Your task to perform on an android device: open chrome privacy settings Image 0: 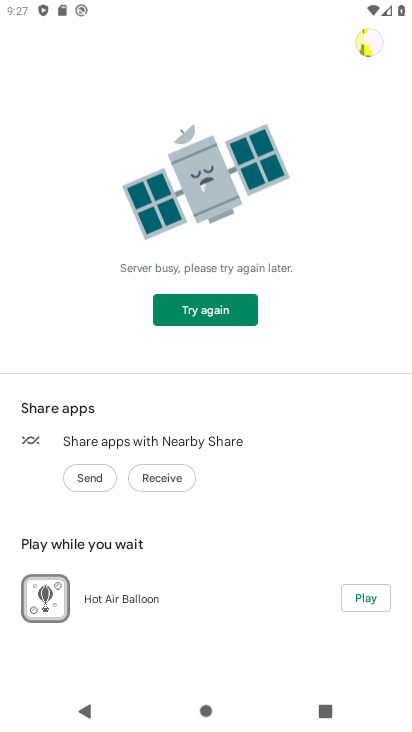
Step 0: press home button
Your task to perform on an android device: open chrome privacy settings Image 1: 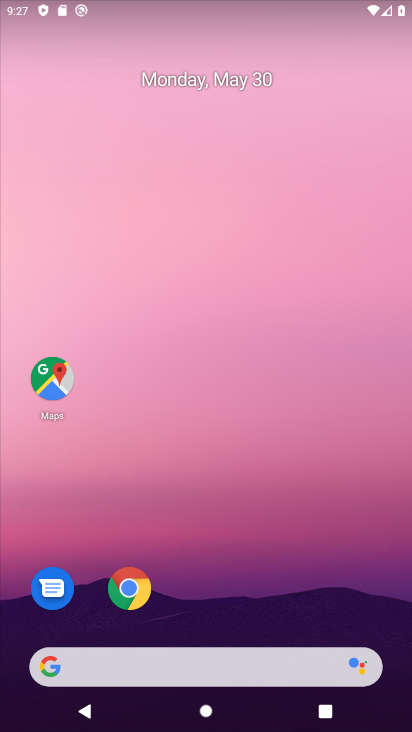
Step 1: drag from (225, 630) to (227, 1)
Your task to perform on an android device: open chrome privacy settings Image 2: 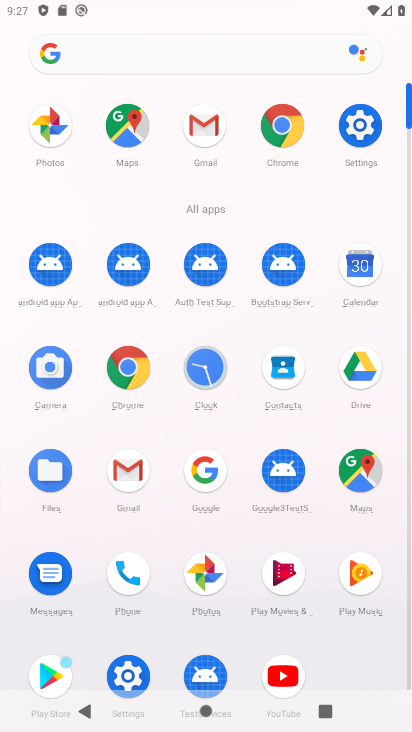
Step 2: click (145, 377)
Your task to perform on an android device: open chrome privacy settings Image 3: 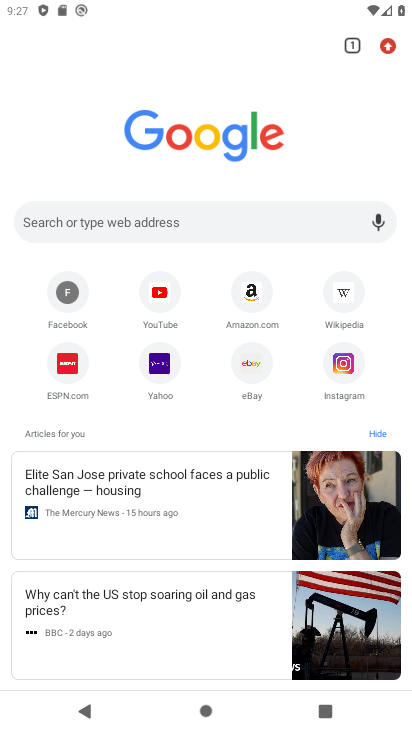
Step 3: click (387, 42)
Your task to perform on an android device: open chrome privacy settings Image 4: 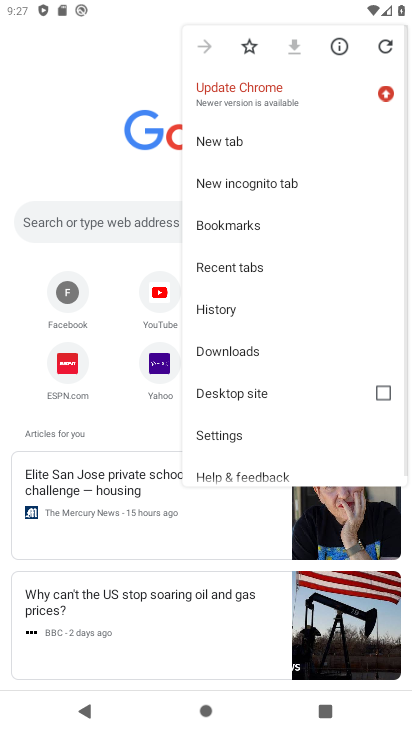
Step 4: drag from (232, 440) to (244, 321)
Your task to perform on an android device: open chrome privacy settings Image 5: 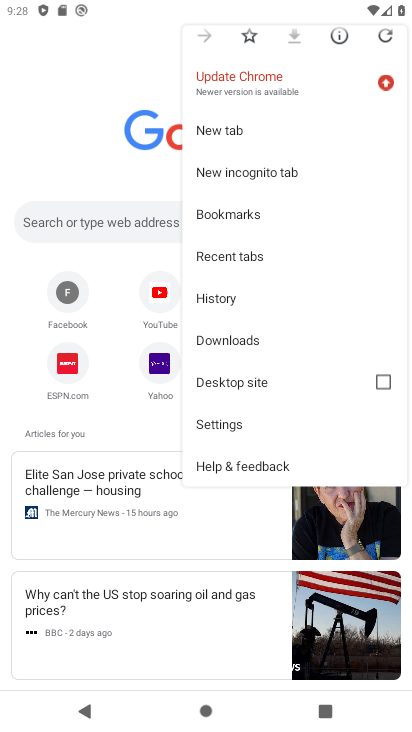
Step 5: click (228, 424)
Your task to perform on an android device: open chrome privacy settings Image 6: 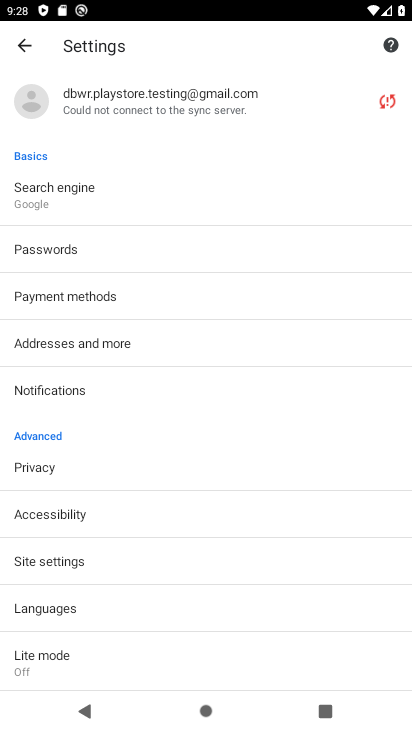
Step 6: click (59, 469)
Your task to perform on an android device: open chrome privacy settings Image 7: 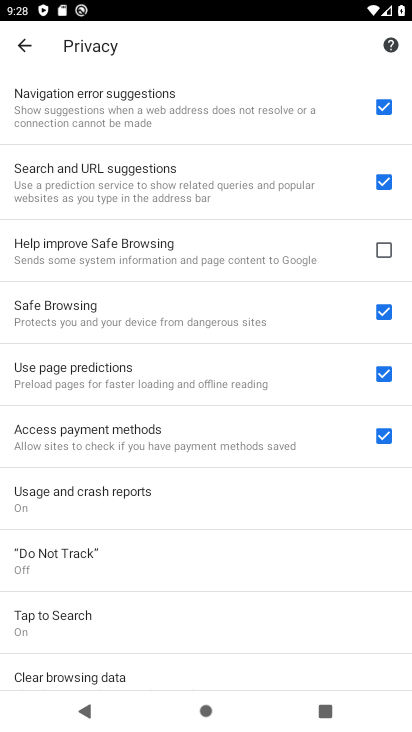
Step 7: task complete